Your task to perform on an android device: Find coffee shops on Maps Image 0: 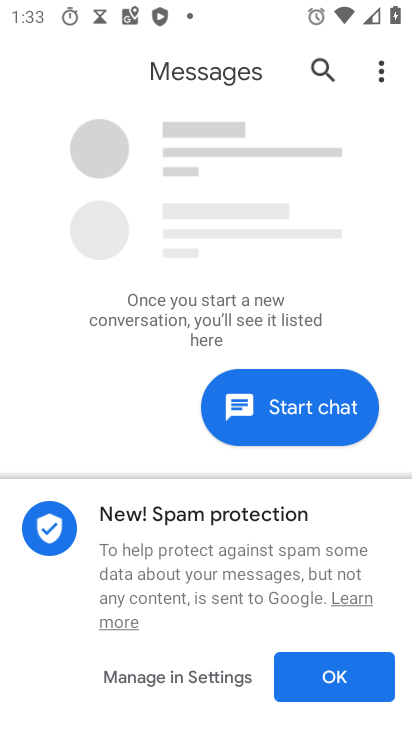
Step 0: press home button
Your task to perform on an android device: Find coffee shops on Maps Image 1: 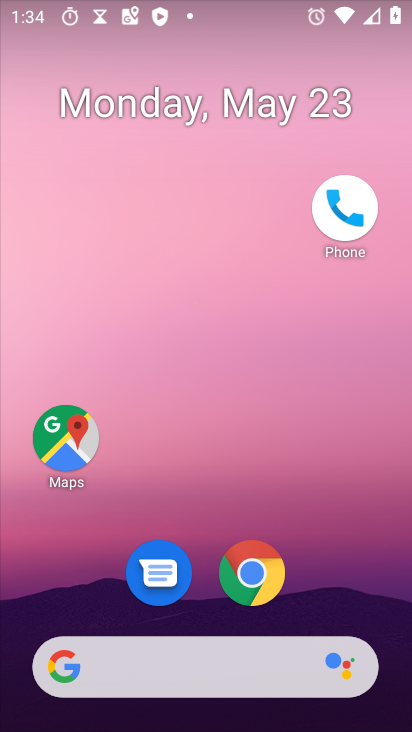
Step 1: click (56, 440)
Your task to perform on an android device: Find coffee shops on Maps Image 2: 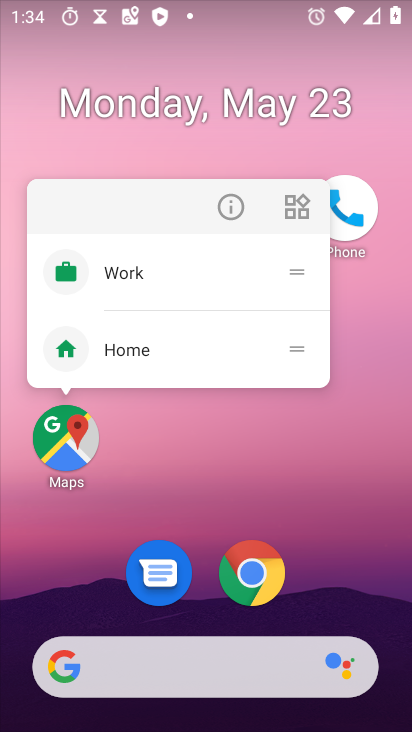
Step 2: click (56, 441)
Your task to perform on an android device: Find coffee shops on Maps Image 3: 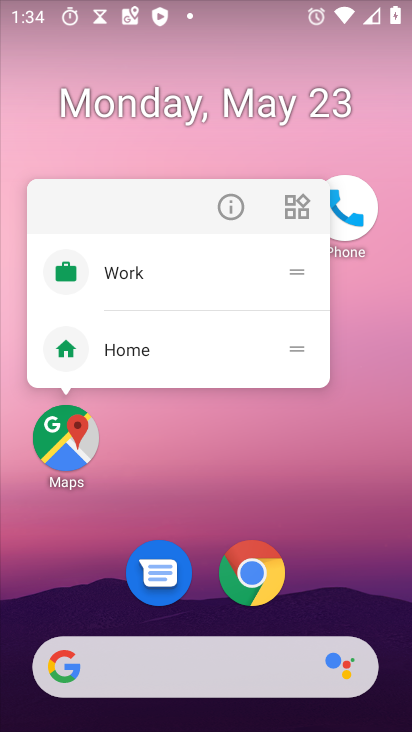
Step 3: click (64, 438)
Your task to perform on an android device: Find coffee shops on Maps Image 4: 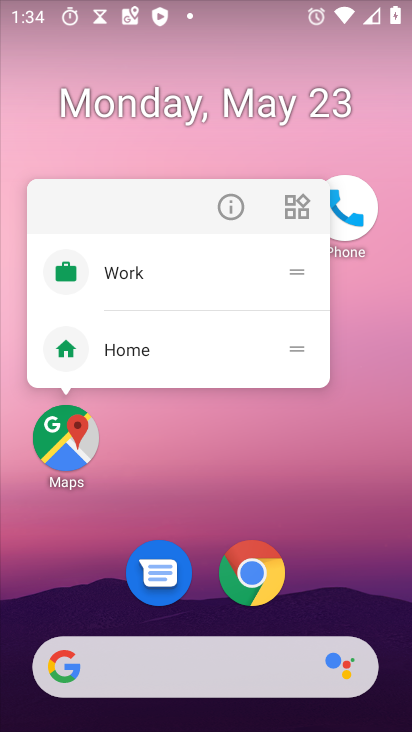
Step 4: click (56, 460)
Your task to perform on an android device: Find coffee shops on Maps Image 5: 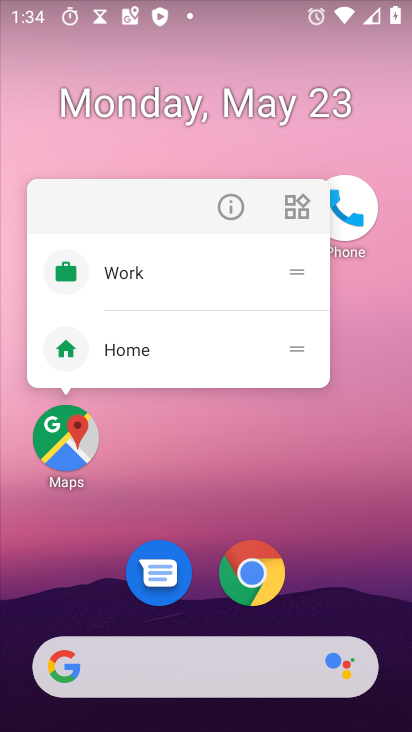
Step 5: click (66, 455)
Your task to perform on an android device: Find coffee shops on Maps Image 6: 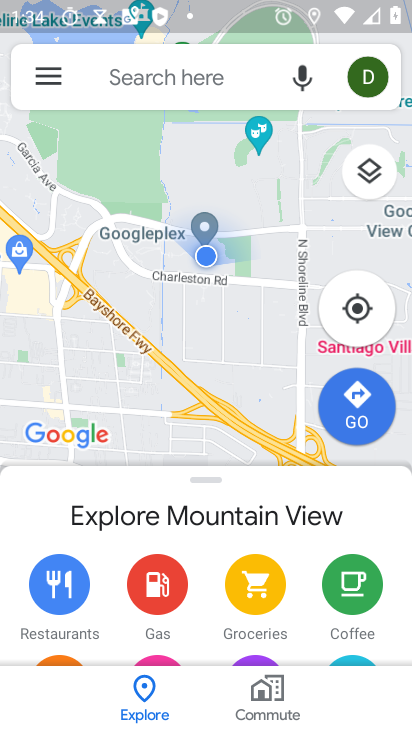
Step 6: click (172, 82)
Your task to perform on an android device: Find coffee shops on Maps Image 7: 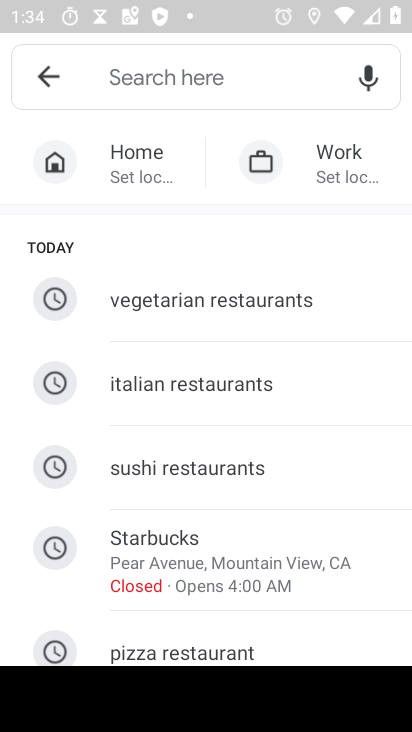
Step 7: type "coffee"
Your task to perform on an android device: Find coffee shops on Maps Image 8: 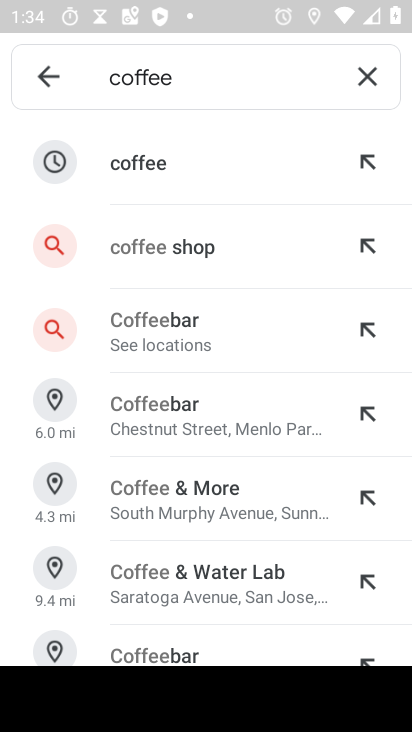
Step 8: click (231, 250)
Your task to perform on an android device: Find coffee shops on Maps Image 9: 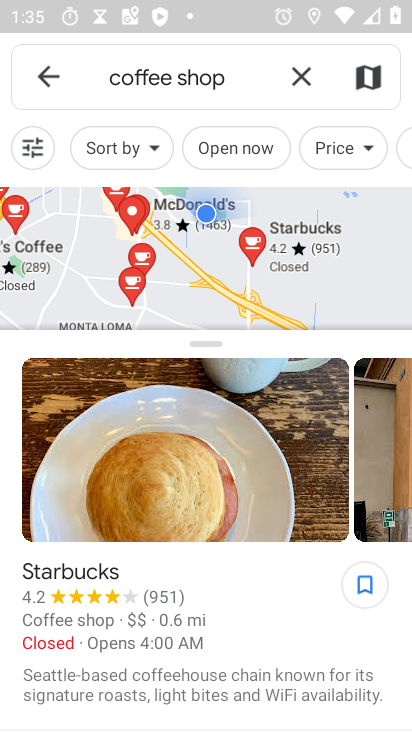
Step 9: task complete